Your task to perform on an android device: turn off priority inbox in the gmail app Image 0: 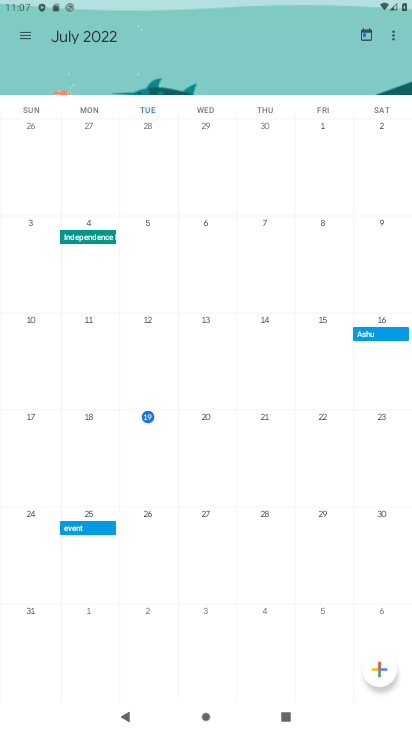
Step 0: press home button
Your task to perform on an android device: turn off priority inbox in the gmail app Image 1: 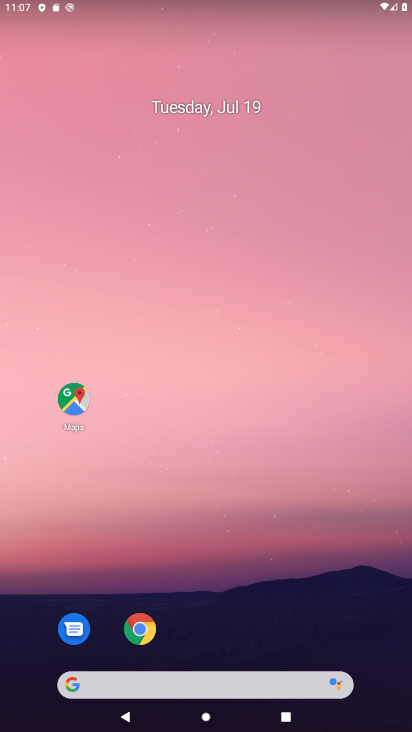
Step 1: drag from (333, 603) to (267, 126)
Your task to perform on an android device: turn off priority inbox in the gmail app Image 2: 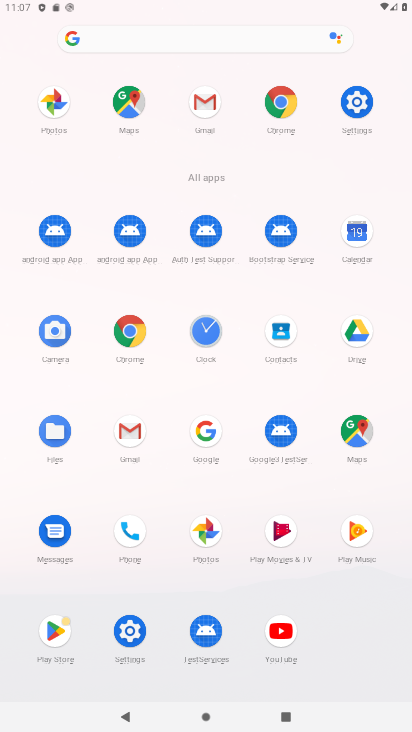
Step 2: click (209, 103)
Your task to perform on an android device: turn off priority inbox in the gmail app Image 3: 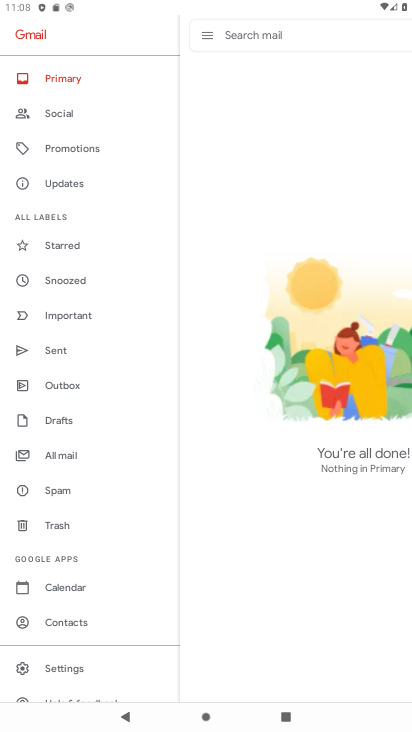
Step 3: click (64, 661)
Your task to perform on an android device: turn off priority inbox in the gmail app Image 4: 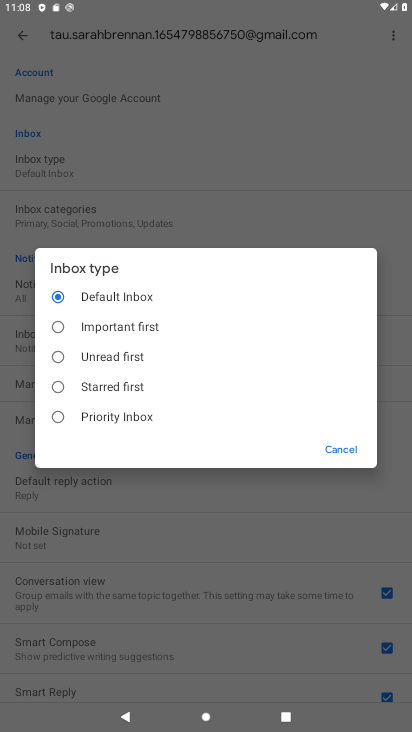
Step 4: task complete